Your task to perform on an android device: Search for Italian restaurants on Maps Image 0: 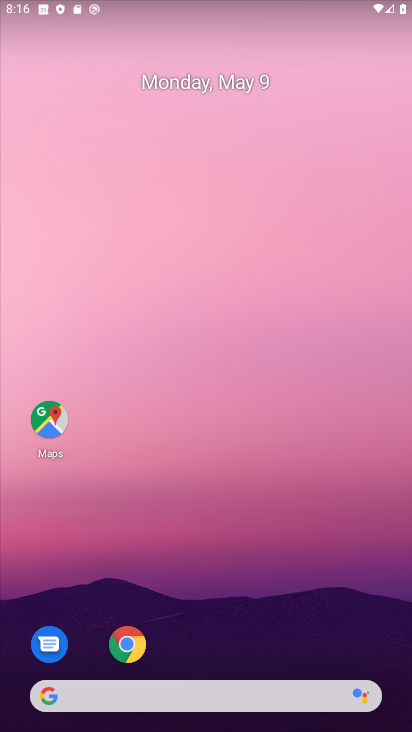
Step 0: click (40, 429)
Your task to perform on an android device: Search for Italian restaurants on Maps Image 1: 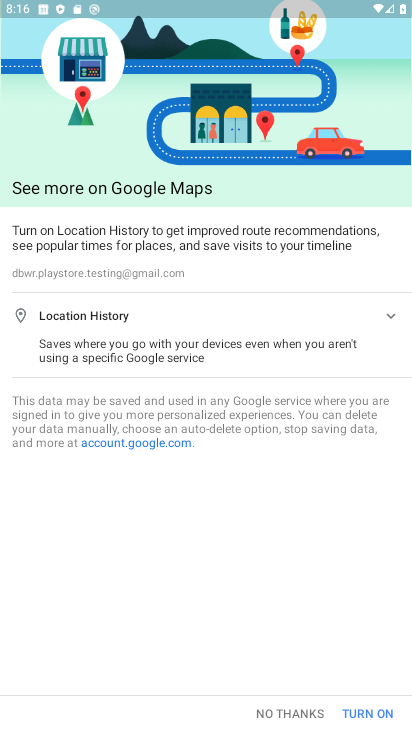
Step 1: press back button
Your task to perform on an android device: Search for Italian restaurants on Maps Image 2: 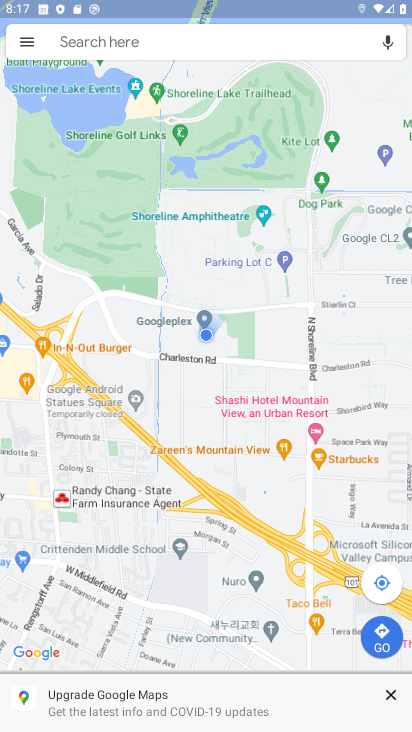
Step 2: click (177, 45)
Your task to perform on an android device: Search for Italian restaurants on Maps Image 3: 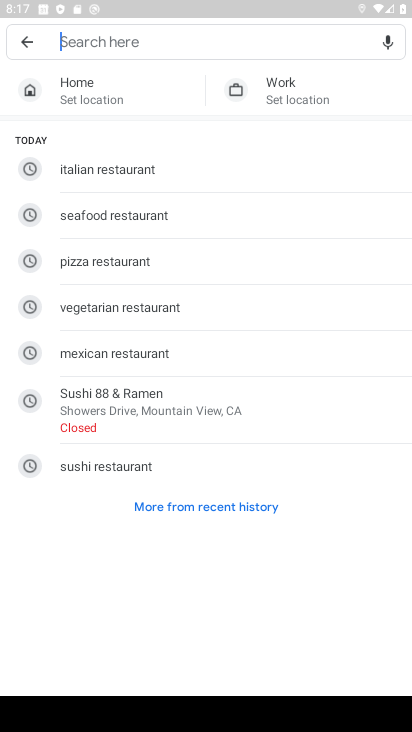
Step 3: click (119, 173)
Your task to perform on an android device: Search for Italian restaurants on Maps Image 4: 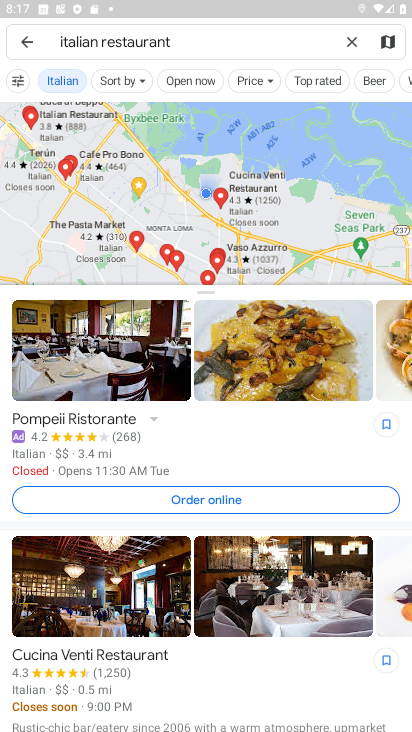
Step 4: task complete